Your task to perform on an android device: Open Google Image 0: 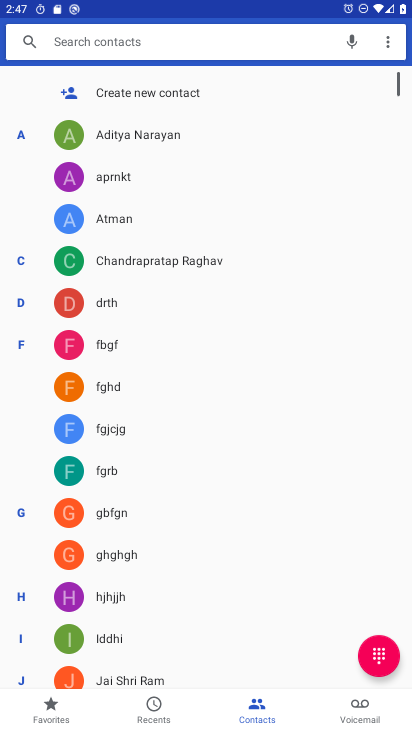
Step 0: drag from (147, 456) to (199, 210)
Your task to perform on an android device: Open Google Image 1: 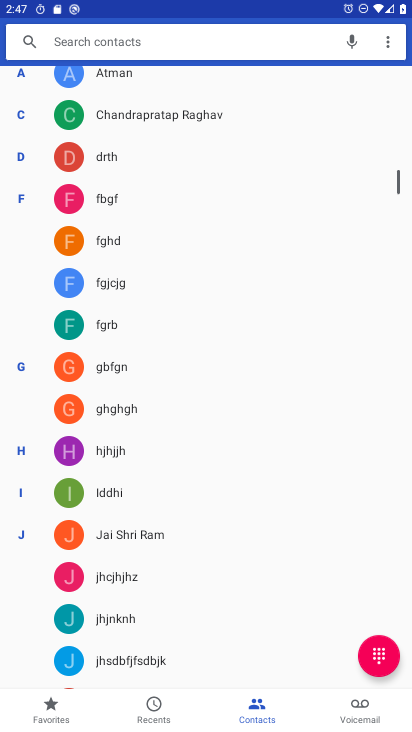
Step 1: drag from (144, 592) to (216, 237)
Your task to perform on an android device: Open Google Image 2: 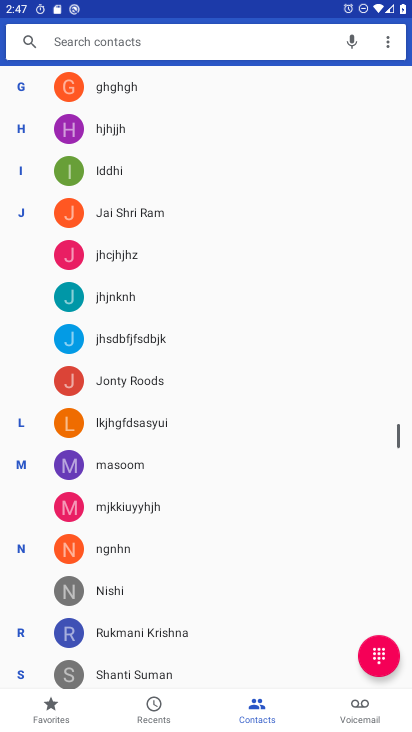
Step 2: press home button
Your task to perform on an android device: Open Google Image 3: 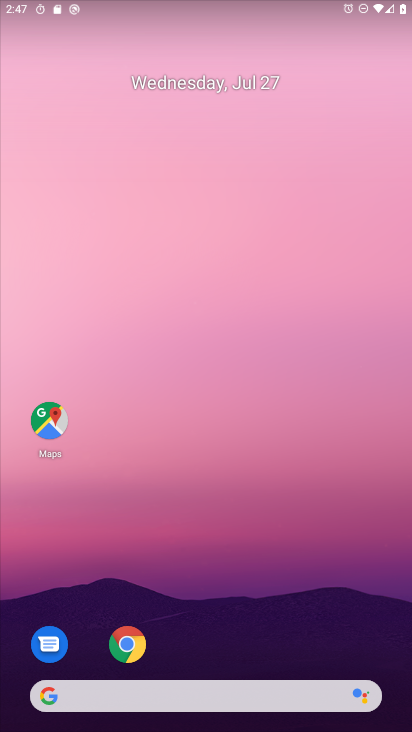
Step 3: drag from (173, 625) to (230, 100)
Your task to perform on an android device: Open Google Image 4: 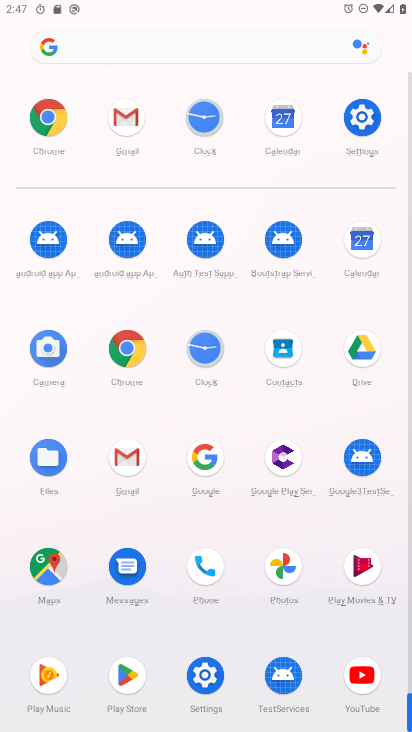
Step 4: click (195, 458)
Your task to perform on an android device: Open Google Image 5: 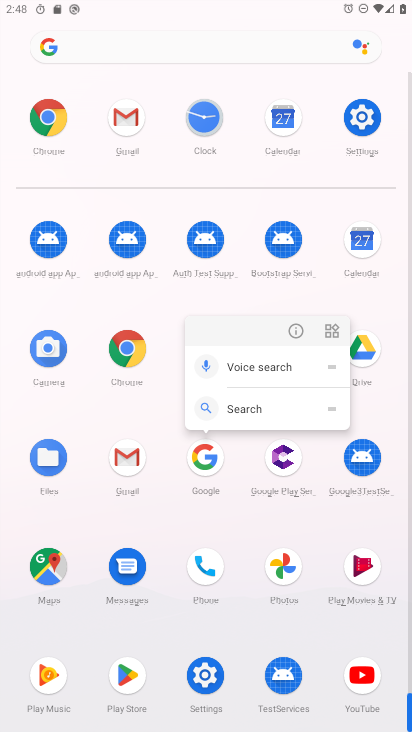
Step 5: click (293, 335)
Your task to perform on an android device: Open Google Image 6: 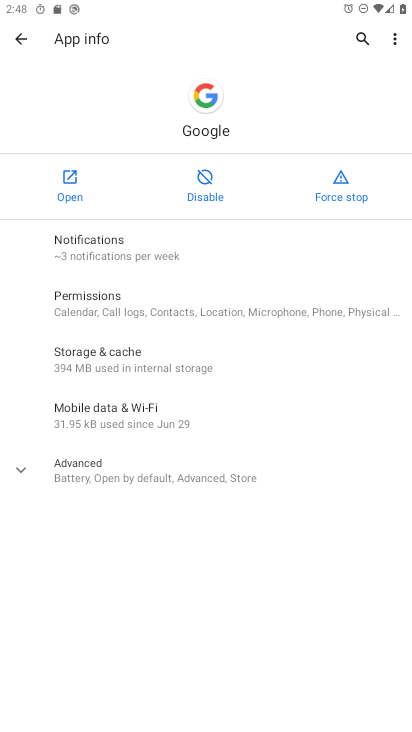
Step 6: click (65, 197)
Your task to perform on an android device: Open Google Image 7: 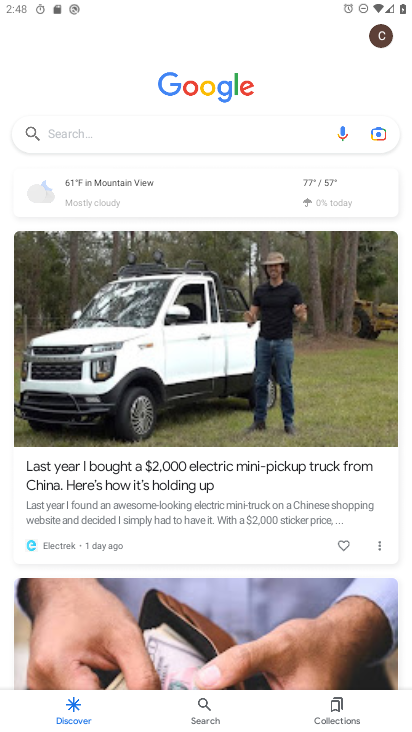
Step 7: task complete